Your task to perform on an android device: See recent photos Image 0: 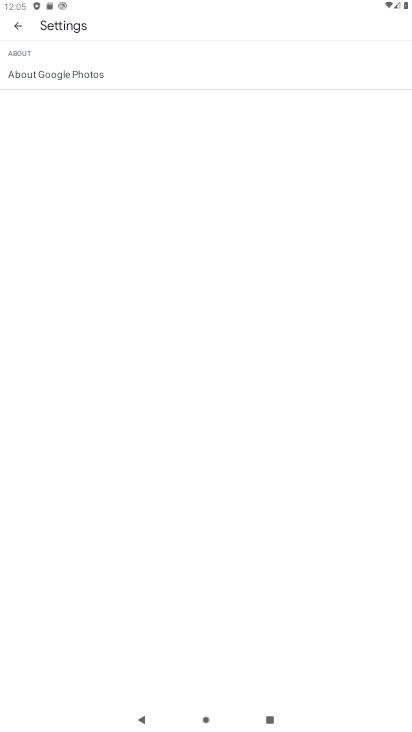
Step 0: press home button
Your task to perform on an android device: See recent photos Image 1: 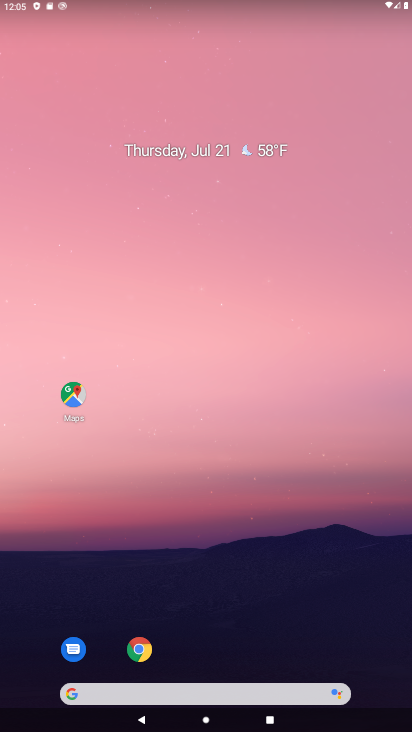
Step 1: drag from (208, 601) to (248, 197)
Your task to perform on an android device: See recent photos Image 2: 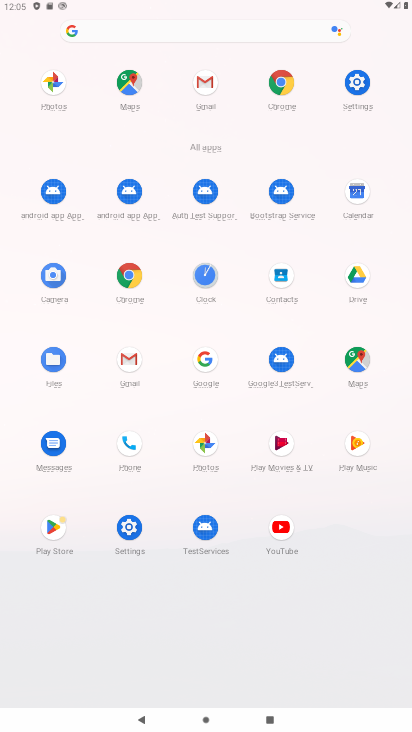
Step 2: click (204, 442)
Your task to perform on an android device: See recent photos Image 3: 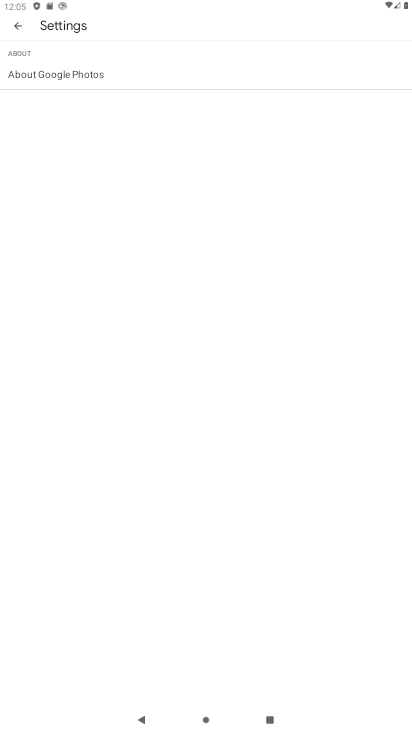
Step 3: click (23, 22)
Your task to perform on an android device: See recent photos Image 4: 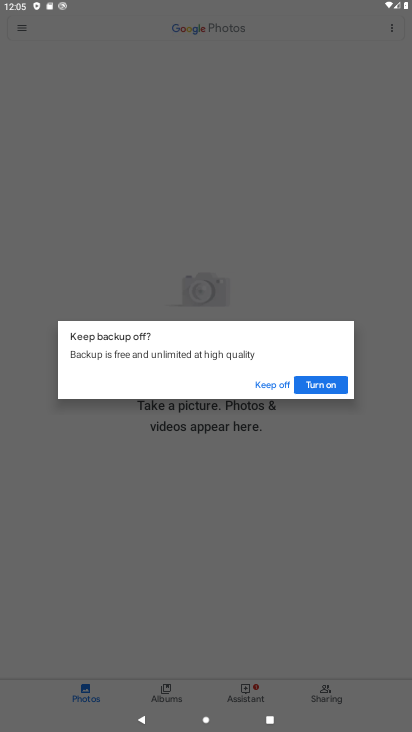
Step 4: press home button
Your task to perform on an android device: See recent photos Image 5: 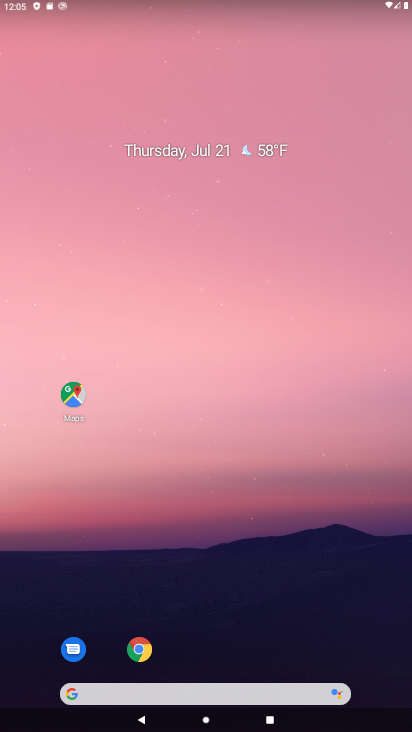
Step 5: drag from (255, 611) to (242, 206)
Your task to perform on an android device: See recent photos Image 6: 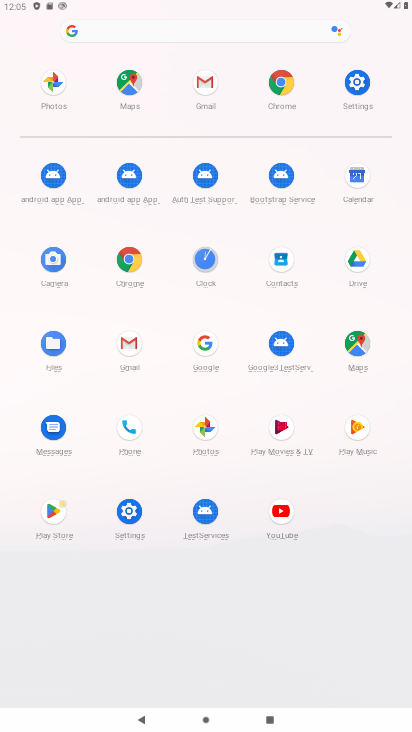
Step 6: click (53, 95)
Your task to perform on an android device: See recent photos Image 7: 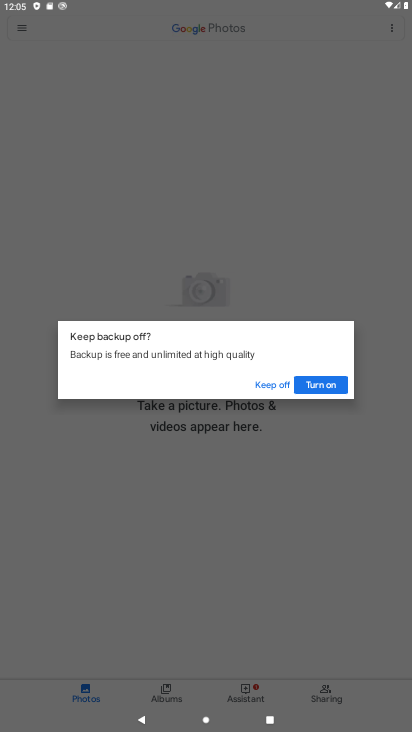
Step 7: click (302, 386)
Your task to perform on an android device: See recent photos Image 8: 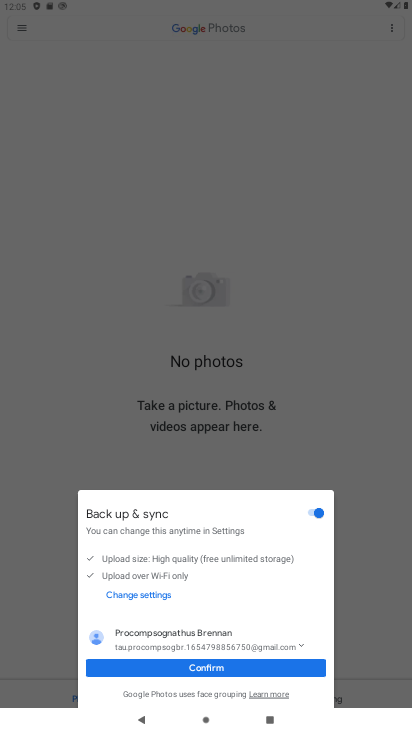
Step 8: click (231, 669)
Your task to perform on an android device: See recent photos Image 9: 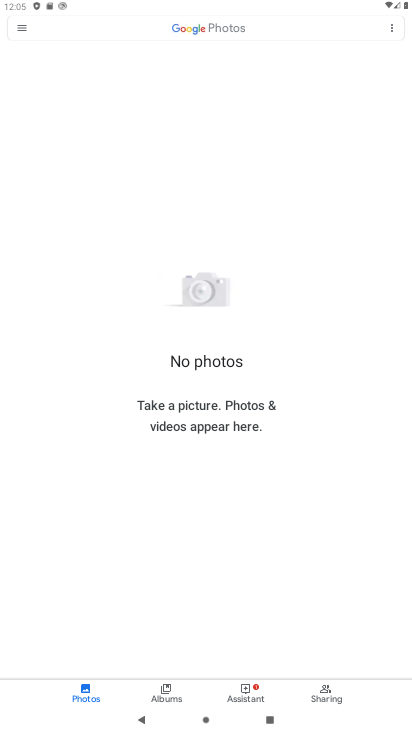
Step 9: task complete